Your task to perform on an android device: turn vacation reply on in the gmail app Image 0: 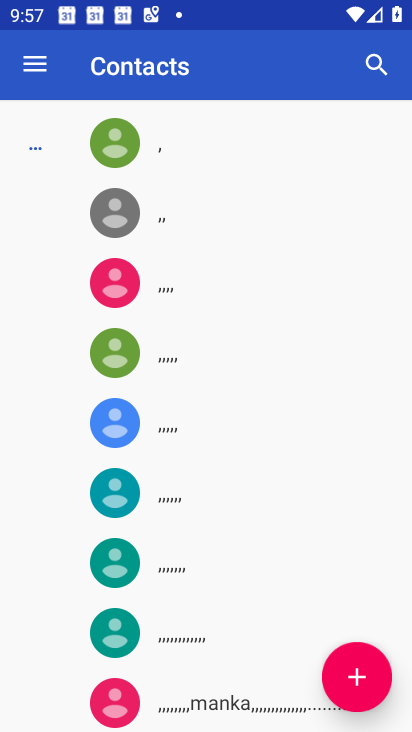
Step 0: press home button
Your task to perform on an android device: turn vacation reply on in the gmail app Image 1: 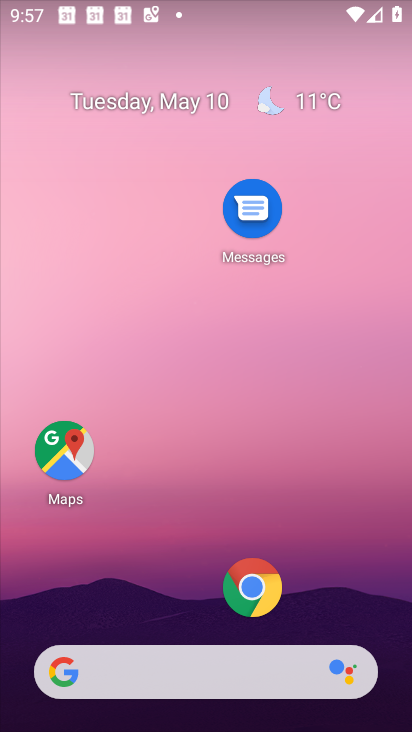
Step 1: drag from (187, 593) to (197, 12)
Your task to perform on an android device: turn vacation reply on in the gmail app Image 2: 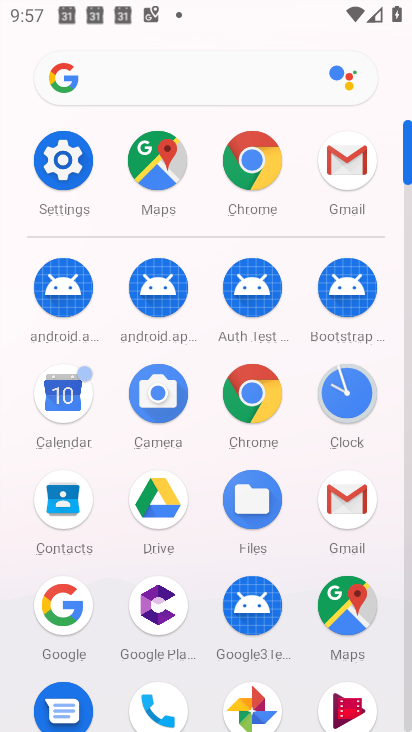
Step 2: click (342, 512)
Your task to perform on an android device: turn vacation reply on in the gmail app Image 3: 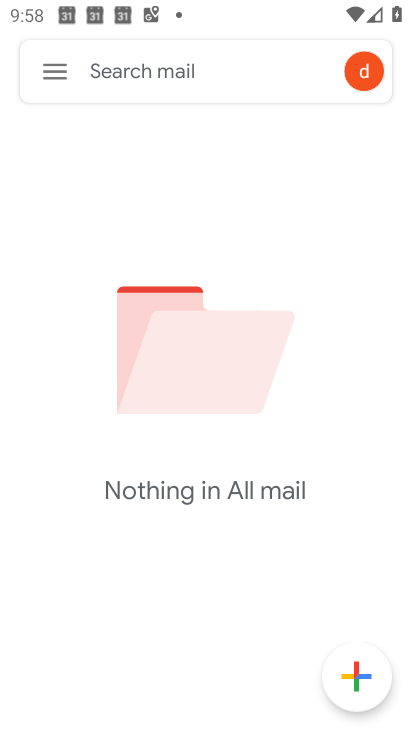
Step 3: click (57, 74)
Your task to perform on an android device: turn vacation reply on in the gmail app Image 4: 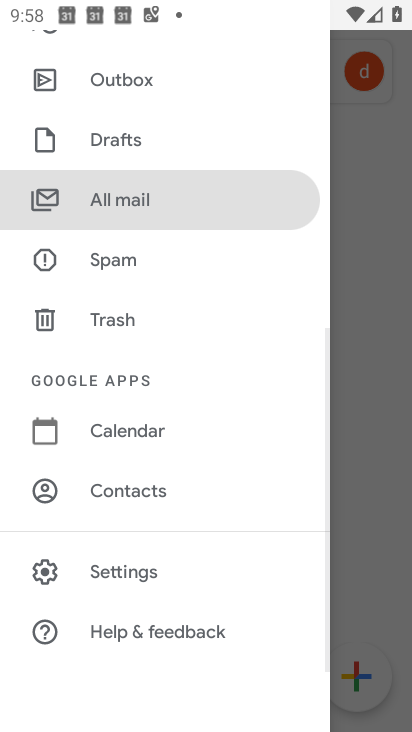
Step 4: click (127, 581)
Your task to perform on an android device: turn vacation reply on in the gmail app Image 5: 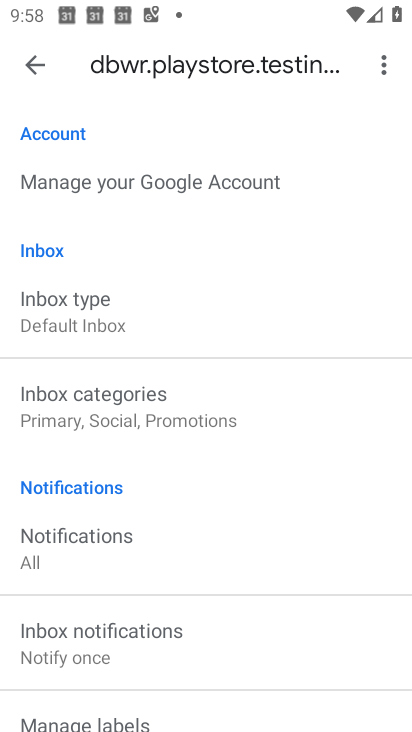
Step 5: drag from (150, 563) to (180, 164)
Your task to perform on an android device: turn vacation reply on in the gmail app Image 6: 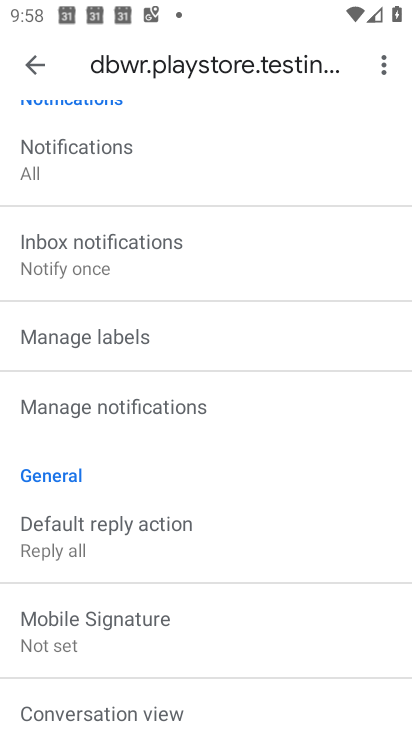
Step 6: drag from (135, 564) to (180, 312)
Your task to perform on an android device: turn vacation reply on in the gmail app Image 7: 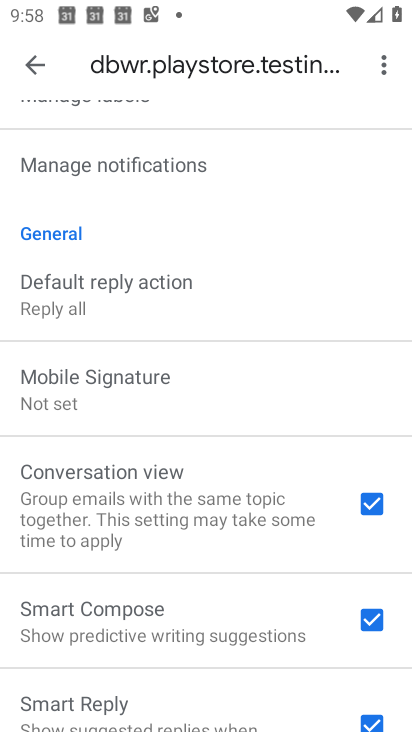
Step 7: drag from (214, 622) to (278, 220)
Your task to perform on an android device: turn vacation reply on in the gmail app Image 8: 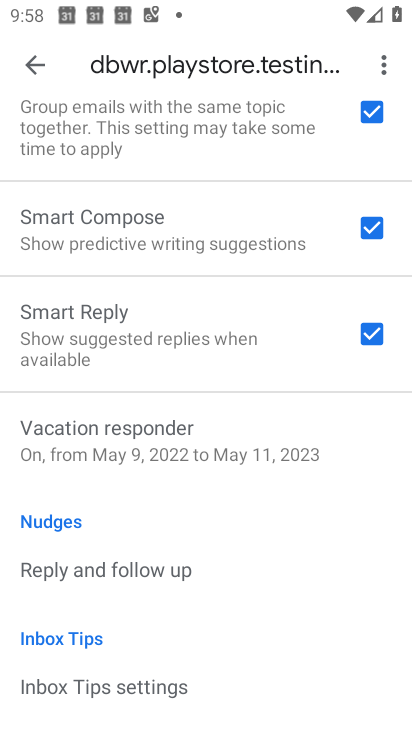
Step 8: click (153, 451)
Your task to perform on an android device: turn vacation reply on in the gmail app Image 9: 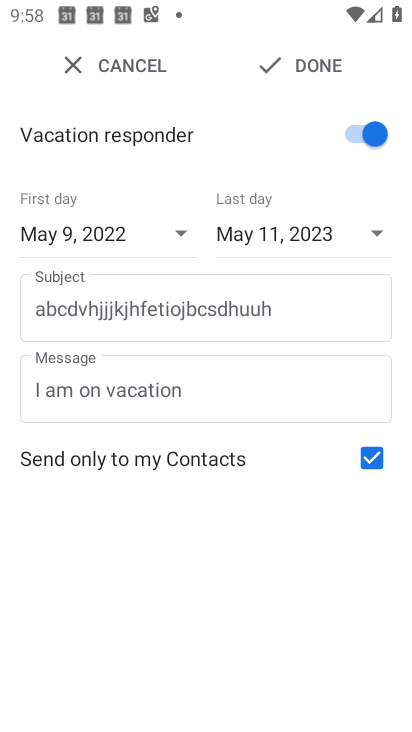
Step 9: task complete